Your task to perform on an android device: all mails in gmail Image 0: 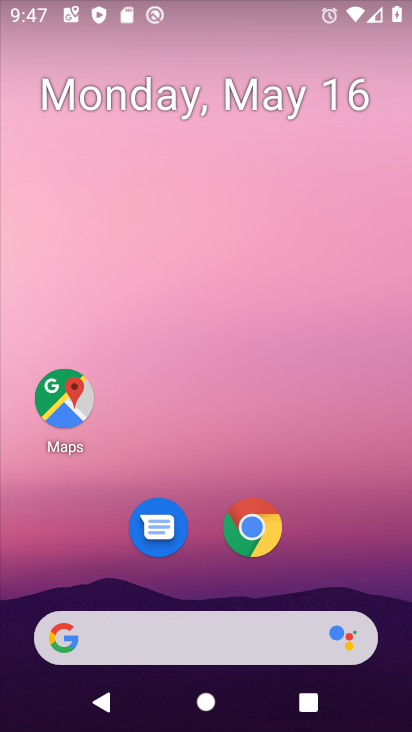
Step 0: drag from (359, 588) to (311, 3)
Your task to perform on an android device: all mails in gmail Image 1: 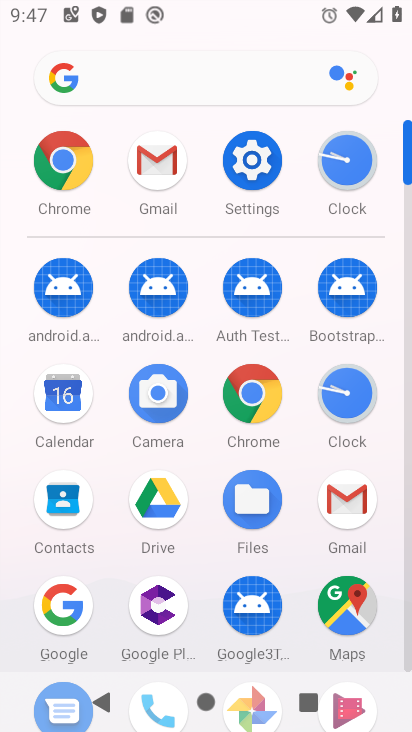
Step 1: click (145, 165)
Your task to perform on an android device: all mails in gmail Image 2: 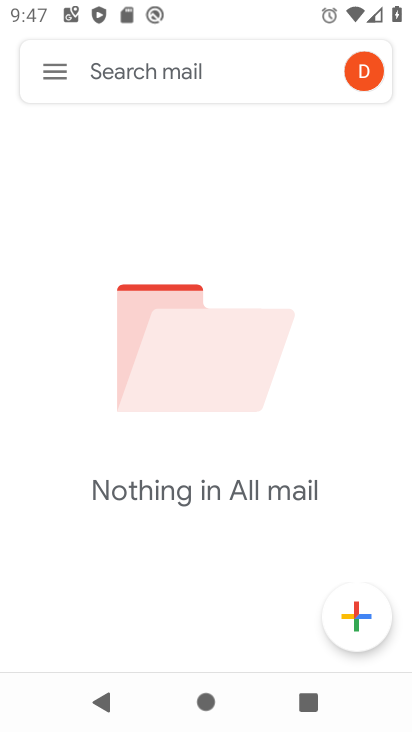
Step 2: task complete